Your task to perform on an android device: Open notification settings Image 0: 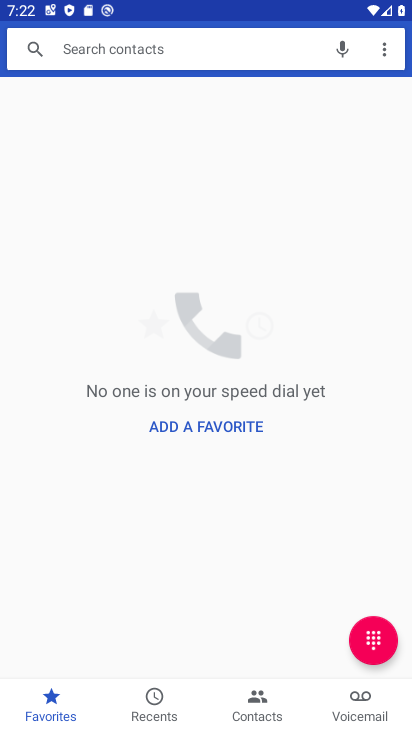
Step 0: press home button
Your task to perform on an android device: Open notification settings Image 1: 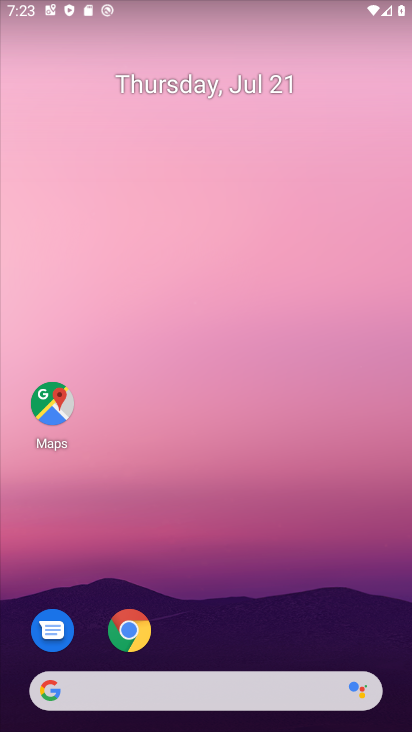
Step 1: drag from (183, 711) to (200, 10)
Your task to perform on an android device: Open notification settings Image 2: 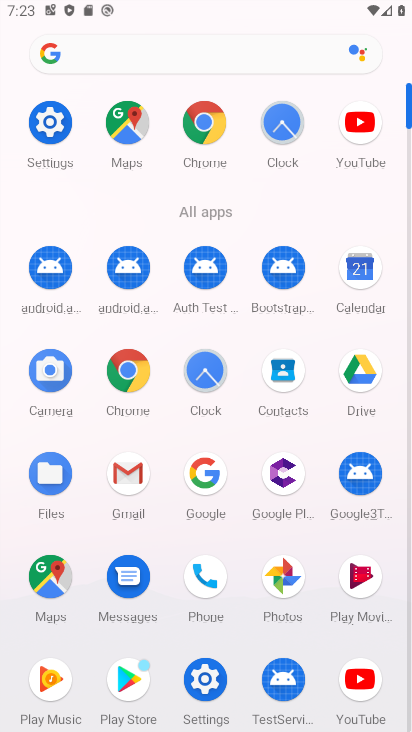
Step 2: click (26, 121)
Your task to perform on an android device: Open notification settings Image 3: 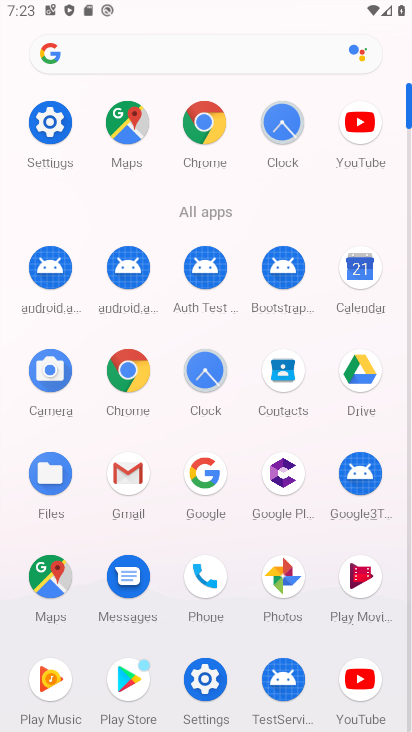
Step 3: click (26, 121)
Your task to perform on an android device: Open notification settings Image 4: 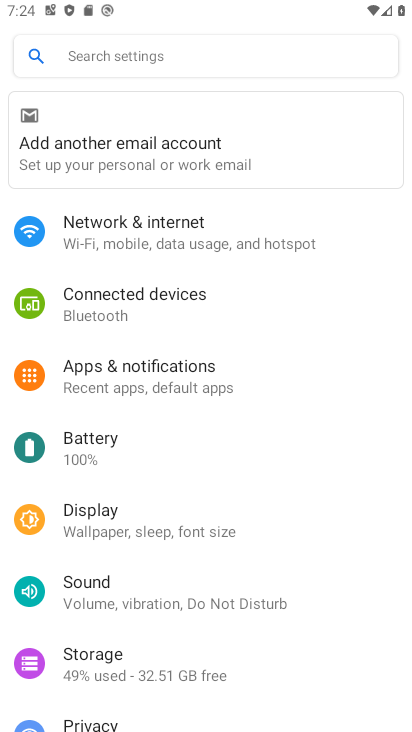
Step 4: click (187, 365)
Your task to perform on an android device: Open notification settings Image 5: 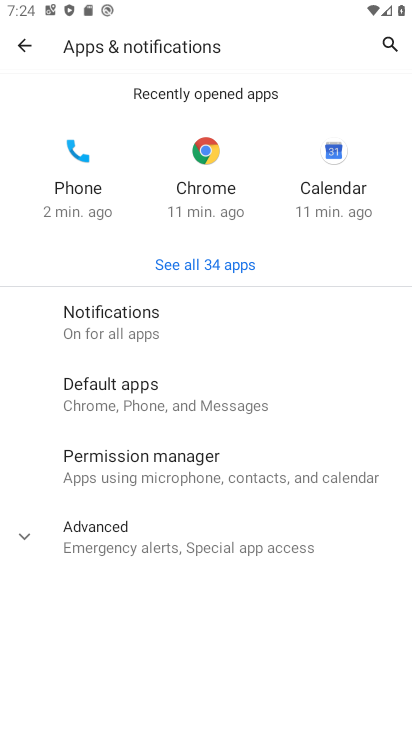
Step 5: task complete